Your task to perform on an android device: Do I have any events tomorrow? Image 0: 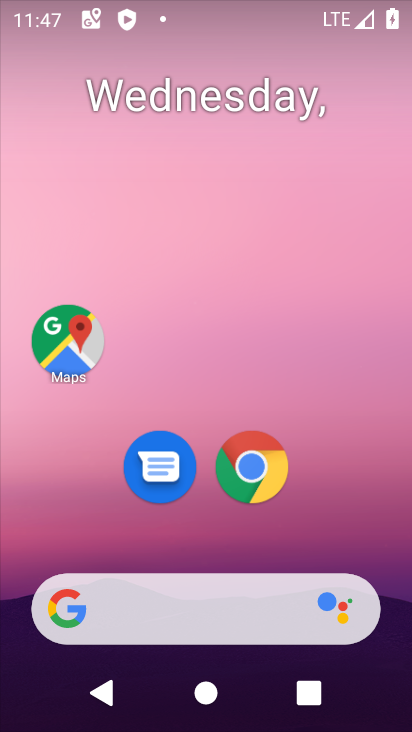
Step 0: drag from (165, 628) to (304, 204)
Your task to perform on an android device: Do I have any events tomorrow? Image 1: 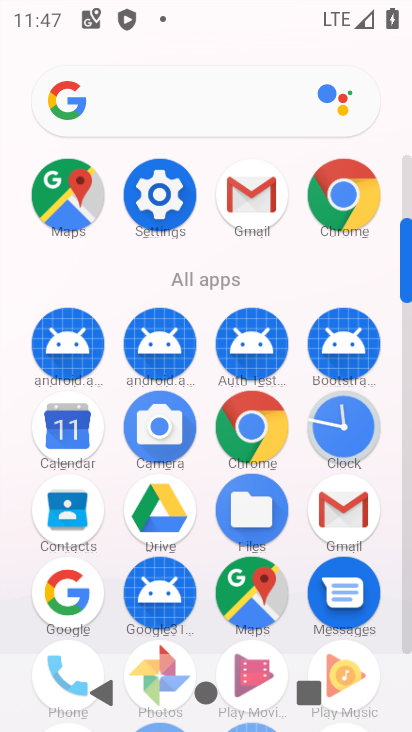
Step 1: click (64, 432)
Your task to perform on an android device: Do I have any events tomorrow? Image 2: 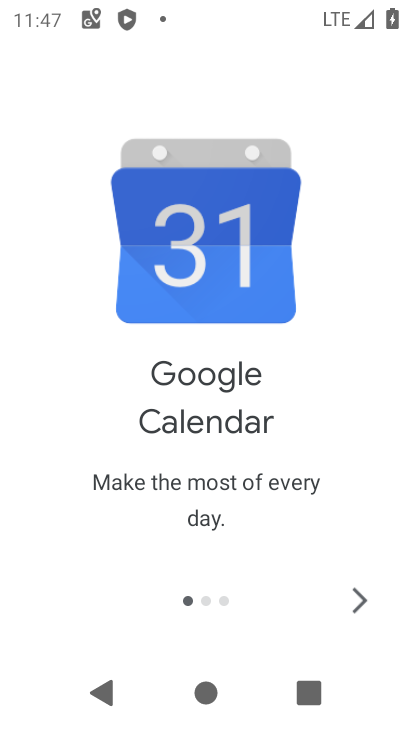
Step 2: click (359, 608)
Your task to perform on an android device: Do I have any events tomorrow? Image 3: 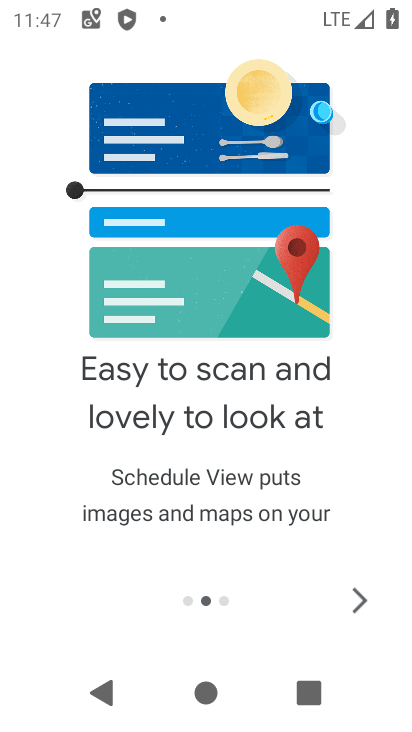
Step 3: click (360, 608)
Your task to perform on an android device: Do I have any events tomorrow? Image 4: 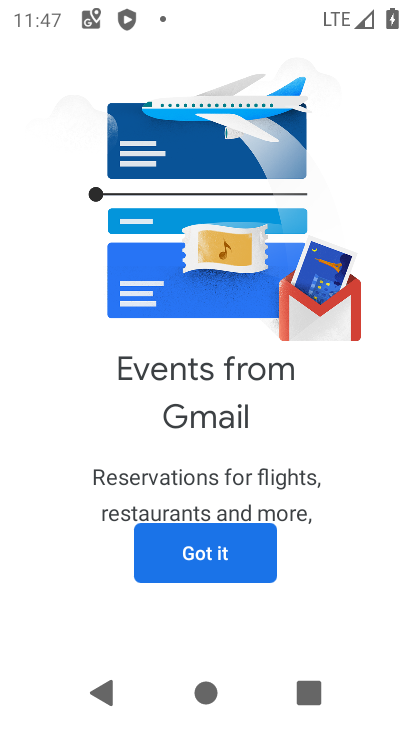
Step 4: click (221, 563)
Your task to perform on an android device: Do I have any events tomorrow? Image 5: 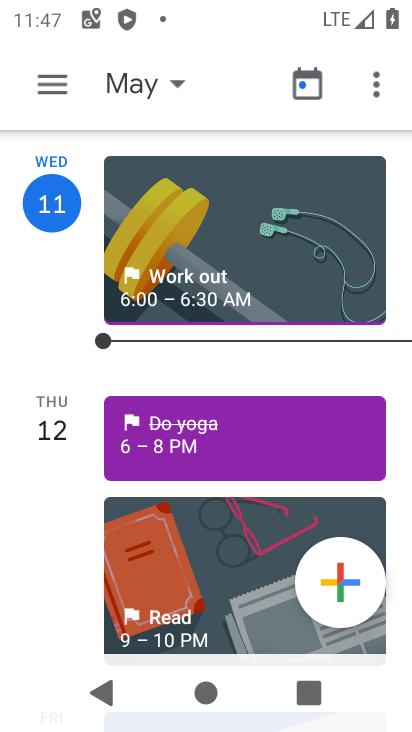
Step 5: click (133, 86)
Your task to perform on an android device: Do I have any events tomorrow? Image 6: 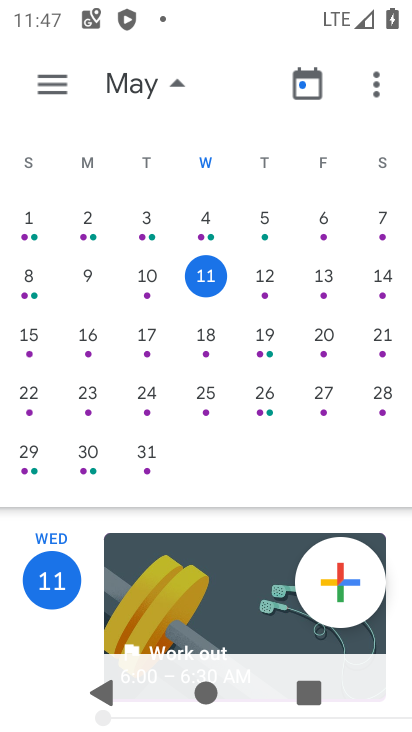
Step 6: click (269, 280)
Your task to perform on an android device: Do I have any events tomorrow? Image 7: 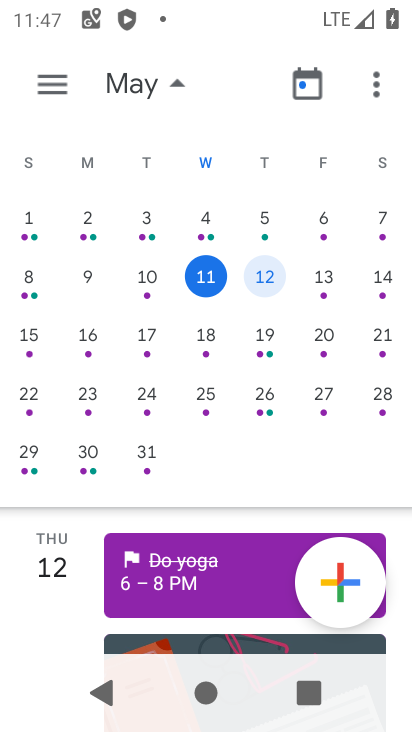
Step 7: click (55, 84)
Your task to perform on an android device: Do I have any events tomorrow? Image 8: 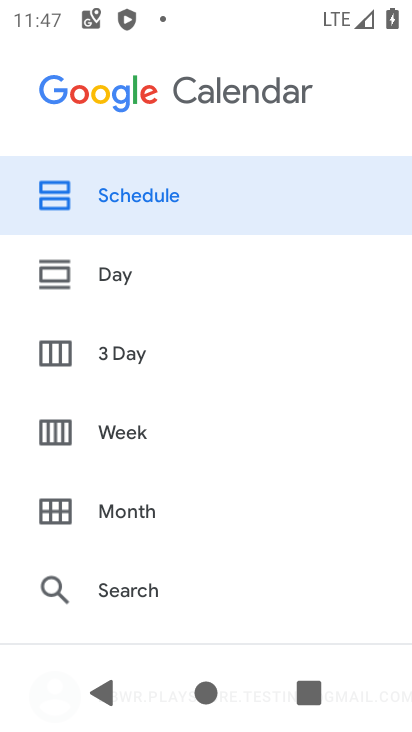
Step 8: click (122, 200)
Your task to perform on an android device: Do I have any events tomorrow? Image 9: 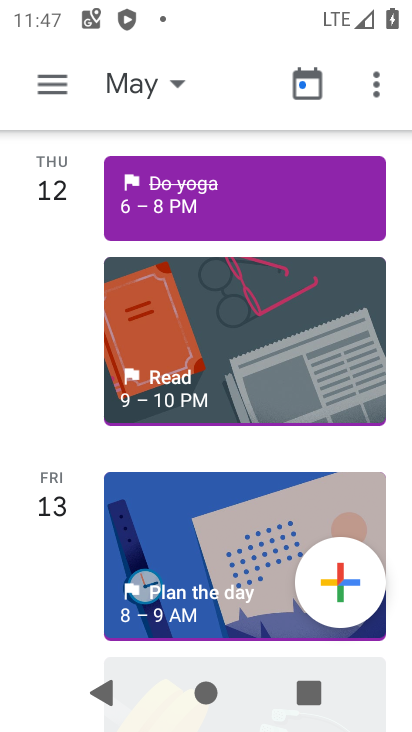
Step 9: click (181, 217)
Your task to perform on an android device: Do I have any events tomorrow? Image 10: 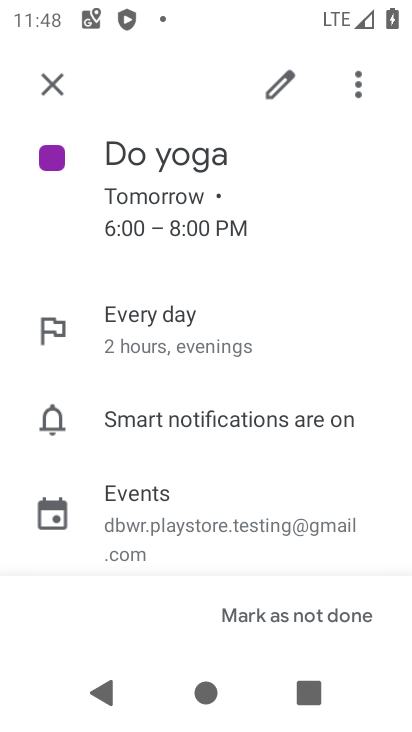
Step 10: task complete